Your task to perform on an android device: Open Yahoo.com Image 0: 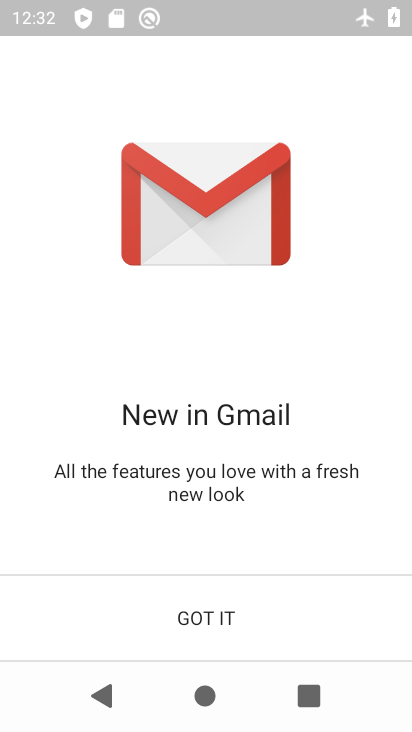
Step 0: press home button
Your task to perform on an android device: Open Yahoo.com Image 1: 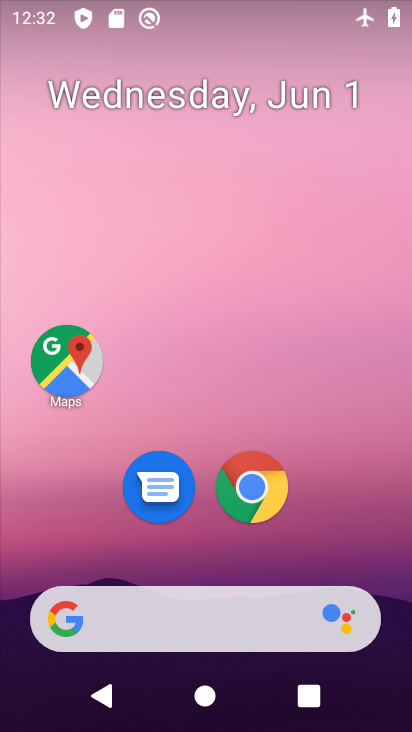
Step 1: click (240, 484)
Your task to perform on an android device: Open Yahoo.com Image 2: 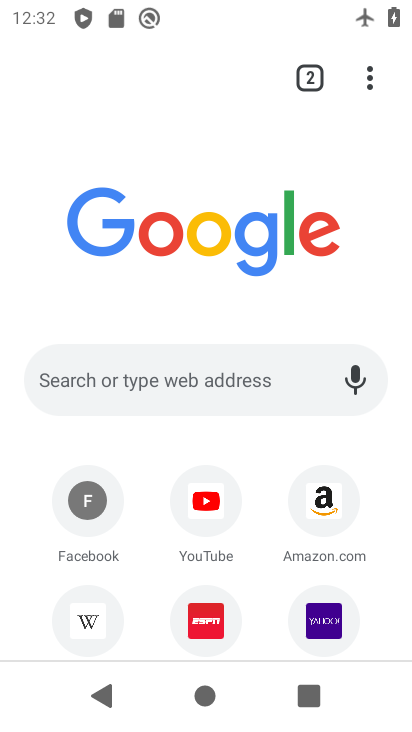
Step 2: click (312, 612)
Your task to perform on an android device: Open Yahoo.com Image 3: 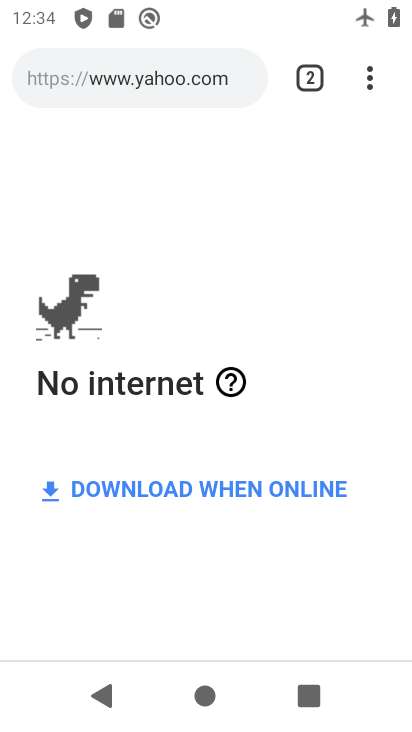
Step 3: task complete